Your task to perform on an android device: toggle improve location accuracy Image 0: 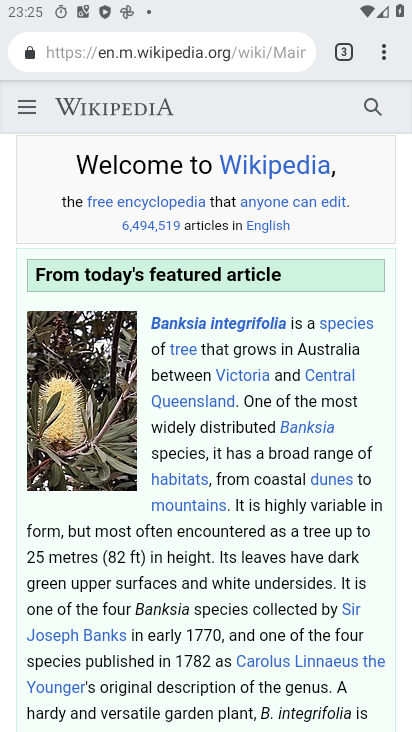
Step 0: press home button
Your task to perform on an android device: toggle improve location accuracy Image 1: 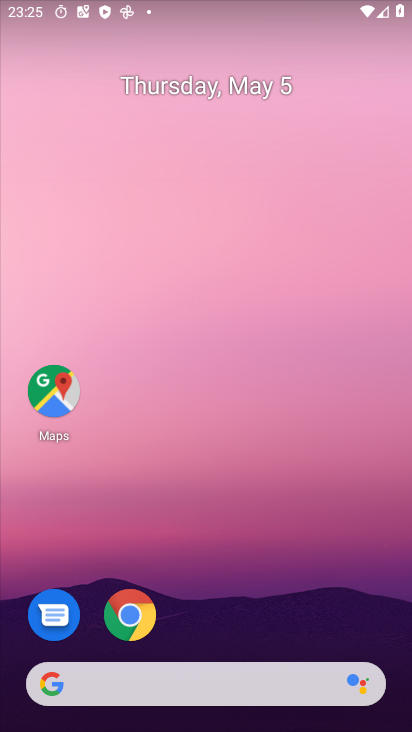
Step 1: drag from (247, 618) to (278, 10)
Your task to perform on an android device: toggle improve location accuracy Image 2: 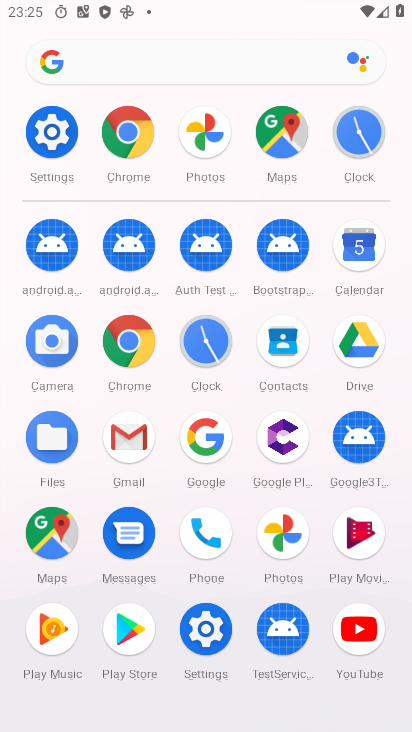
Step 2: click (47, 136)
Your task to perform on an android device: toggle improve location accuracy Image 3: 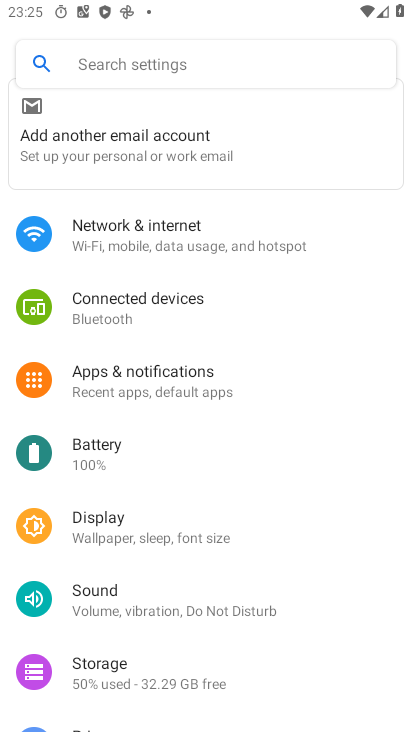
Step 3: drag from (208, 598) to (241, 159)
Your task to perform on an android device: toggle improve location accuracy Image 4: 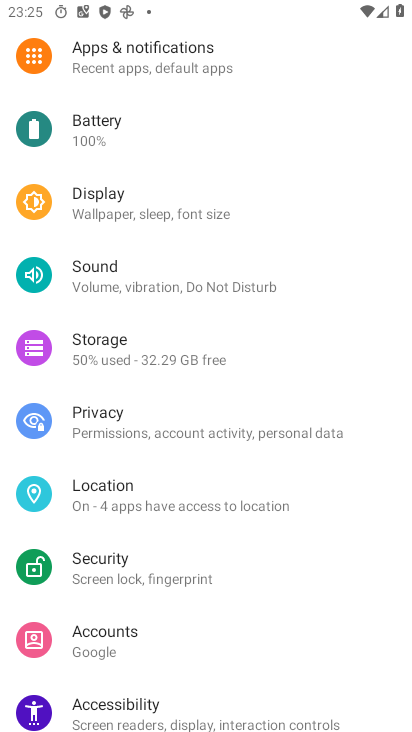
Step 4: click (132, 482)
Your task to perform on an android device: toggle improve location accuracy Image 5: 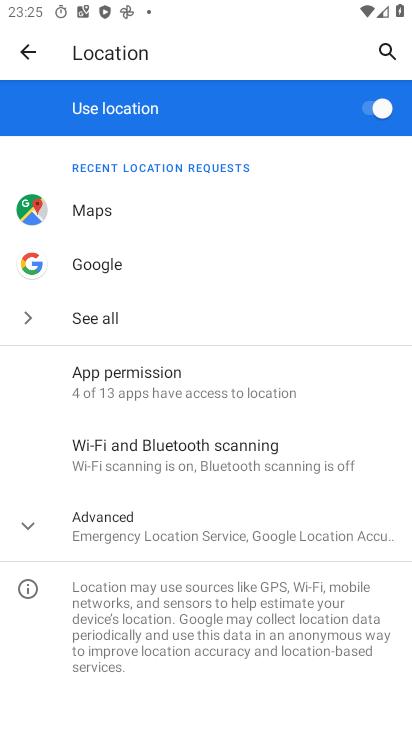
Step 5: click (120, 502)
Your task to perform on an android device: toggle improve location accuracy Image 6: 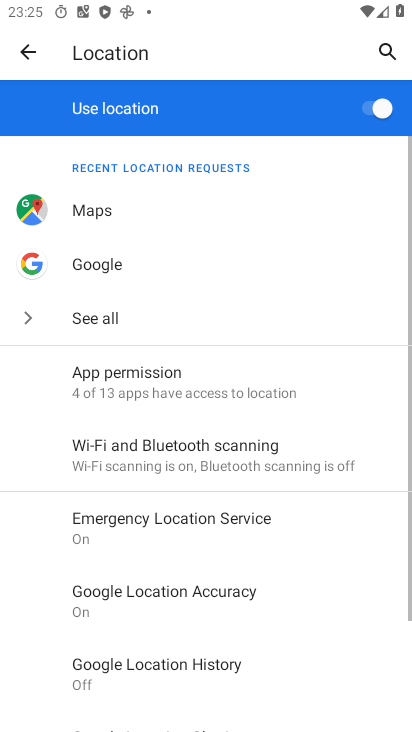
Step 6: drag from (274, 544) to (283, 296)
Your task to perform on an android device: toggle improve location accuracy Image 7: 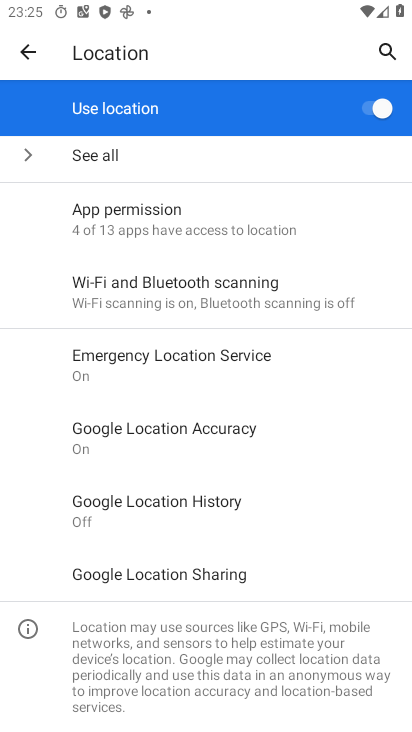
Step 7: click (164, 423)
Your task to perform on an android device: toggle improve location accuracy Image 8: 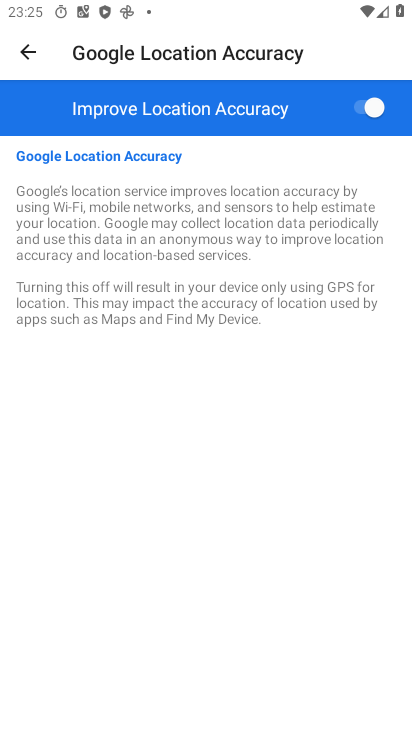
Step 8: click (367, 109)
Your task to perform on an android device: toggle improve location accuracy Image 9: 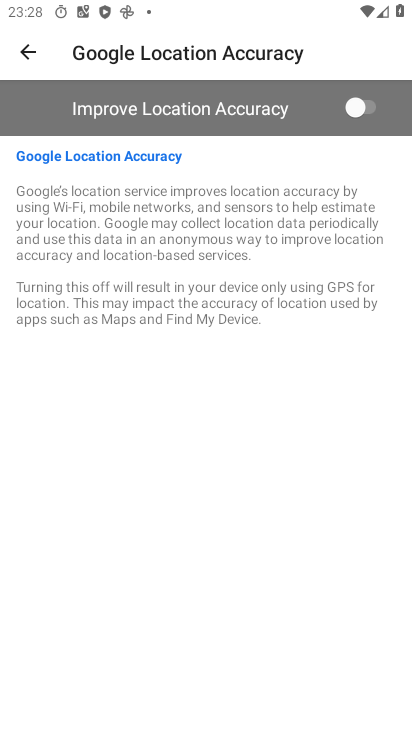
Step 9: task complete